Your task to perform on an android device: find which apps use the phone's location Image 0: 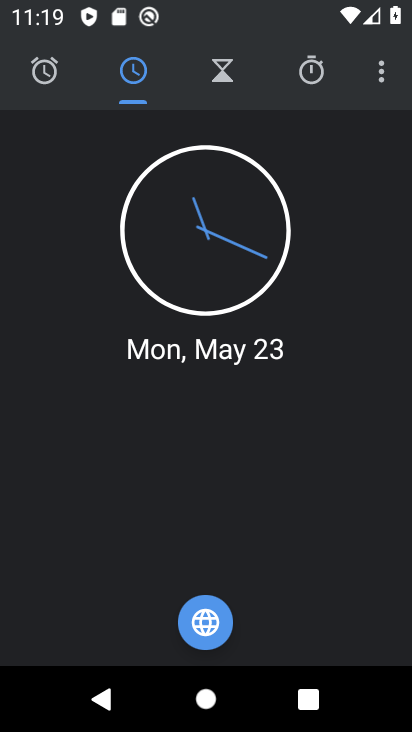
Step 0: press home button
Your task to perform on an android device: find which apps use the phone's location Image 1: 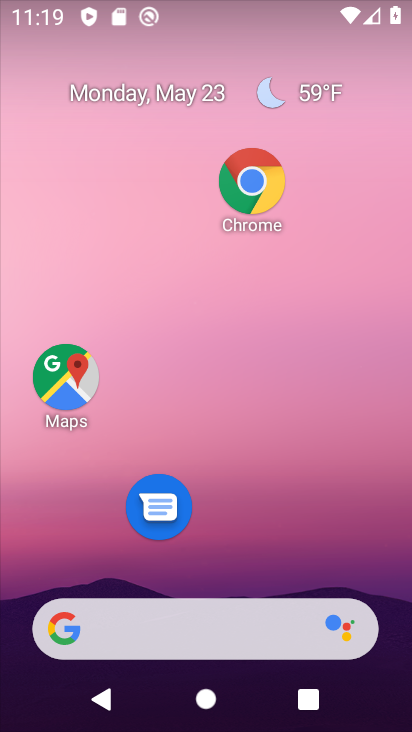
Step 1: drag from (270, 563) to (326, 215)
Your task to perform on an android device: find which apps use the phone's location Image 2: 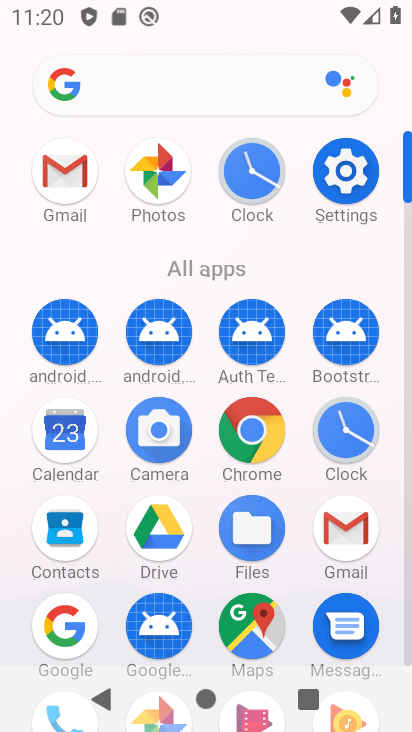
Step 2: click (360, 160)
Your task to perform on an android device: find which apps use the phone's location Image 3: 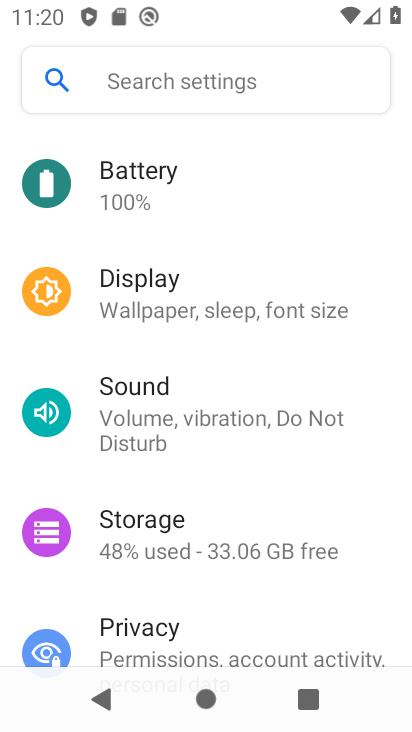
Step 3: drag from (197, 566) to (230, 255)
Your task to perform on an android device: find which apps use the phone's location Image 4: 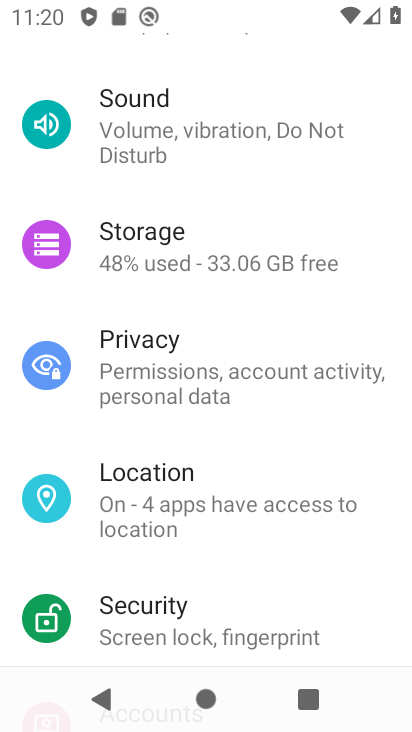
Step 4: click (226, 483)
Your task to perform on an android device: find which apps use the phone's location Image 5: 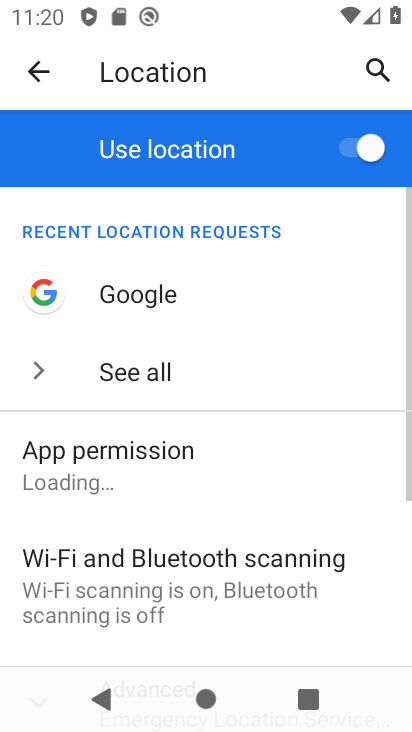
Step 5: task complete